Your task to perform on an android device: set the stopwatch Image 0: 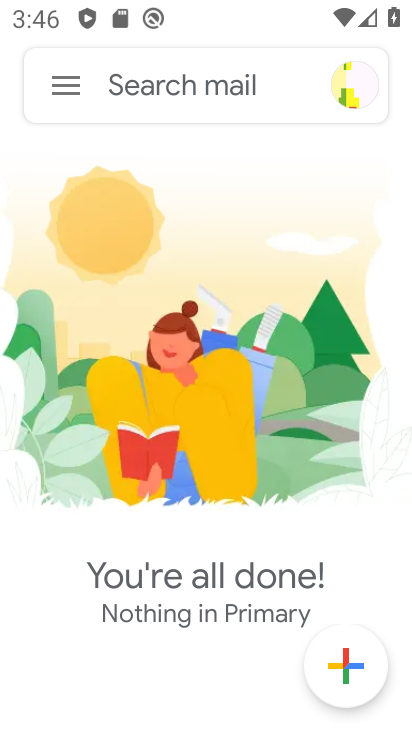
Step 0: press home button
Your task to perform on an android device: set the stopwatch Image 1: 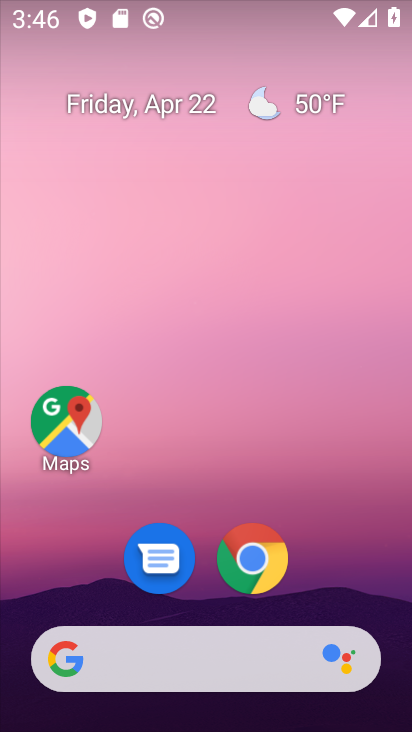
Step 1: drag from (322, 540) to (226, 91)
Your task to perform on an android device: set the stopwatch Image 2: 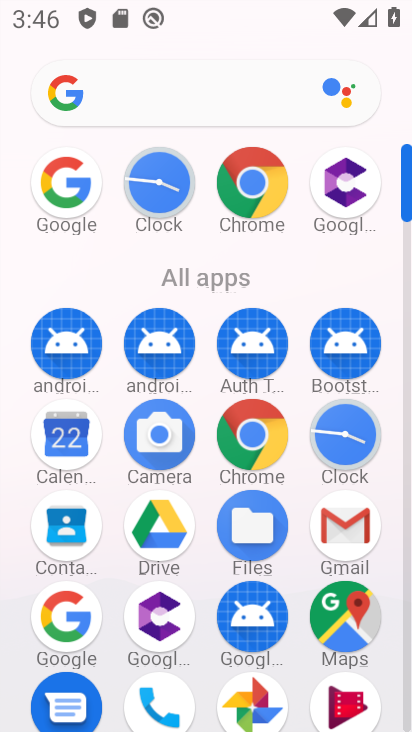
Step 2: click (334, 461)
Your task to perform on an android device: set the stopwatch Image 3: 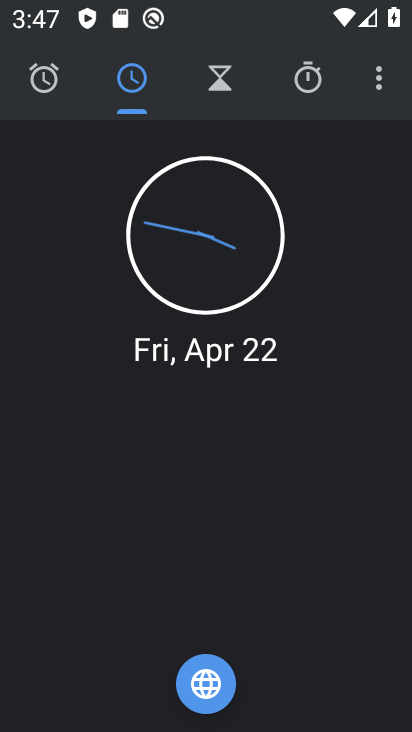
Step 3: click (306, 80)
Your task to perform on an android device: set the stopwatch Image 4: 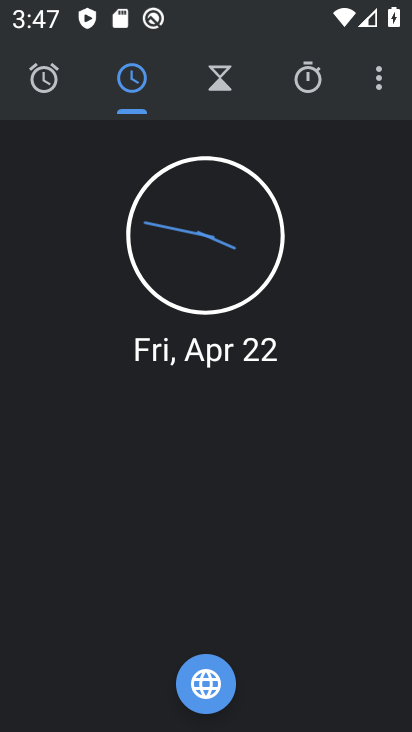
Step 4: click (316, 94)
Your task to perform on an android device: set the stopwatch Image 5: 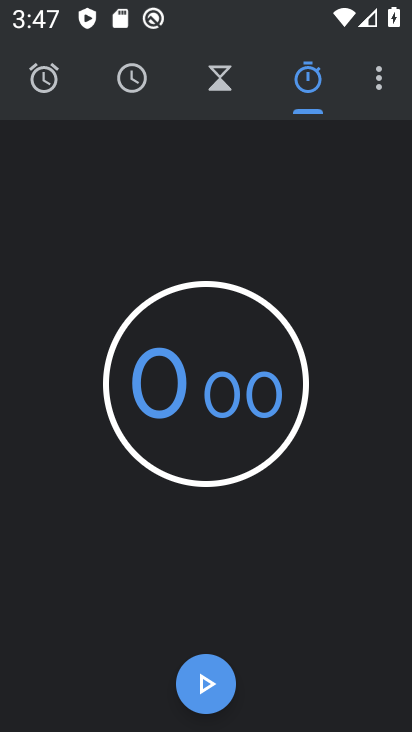
Step 5: click (204, 695)
Your task to perform on an android device: set the stopwatch Image 6: 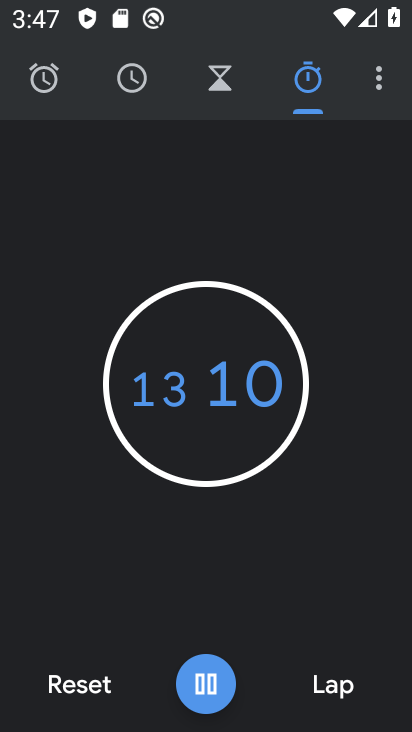
Step 6: click (201, 697)
Your task to perform on an android device: set the stopwatch Image 7: 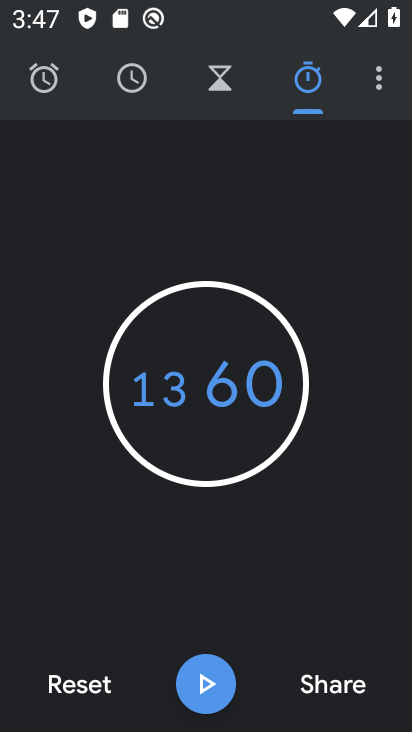
Step 7: task complete